Your task to perform on an android device: Open internet settings Image 0: 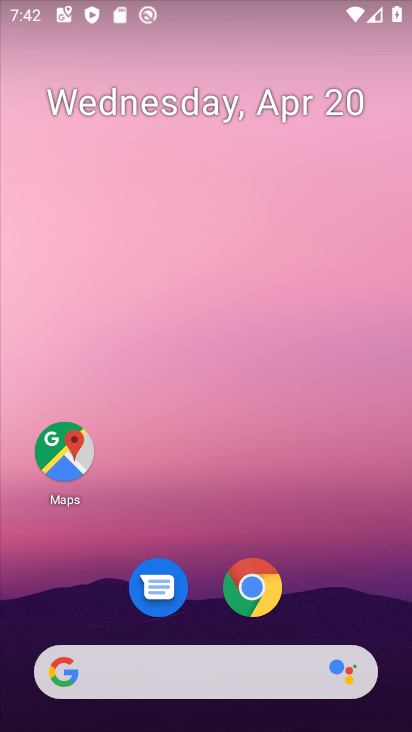
Step 0: drag from (345, 581) to (346, 177)
Your task to perform on an android device: Open internet settings Image 1: 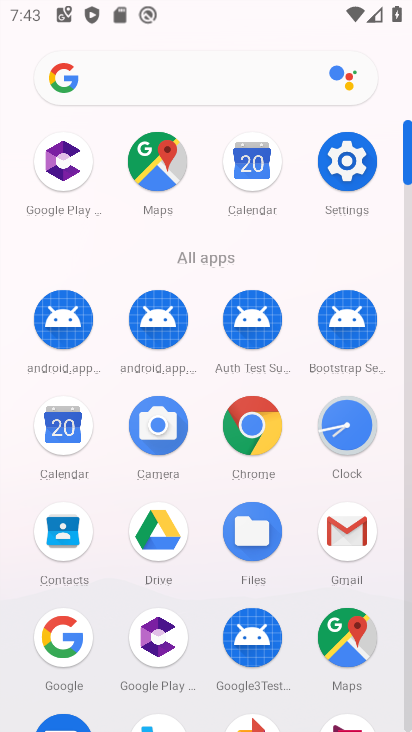
Step 1: click (340, 156)
Your task to perform on an android device: Open internet settings Image 2: 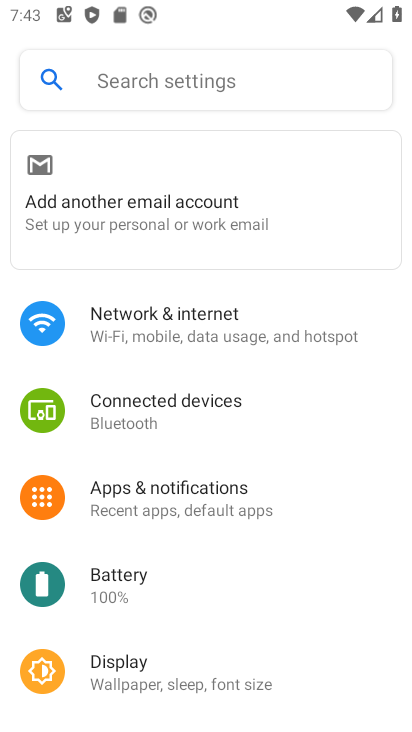
Step 2: drag from (356, 566) to (357, 383)
Your task to perform on an android device: Open internet settings Image 3: 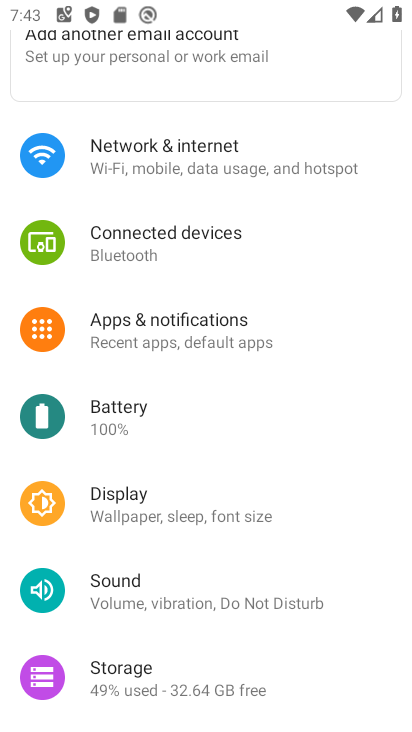
Step 3: drag from (355, 602) to (357, 349)
Your task to perform on an android device: Open internet settings Image 4: 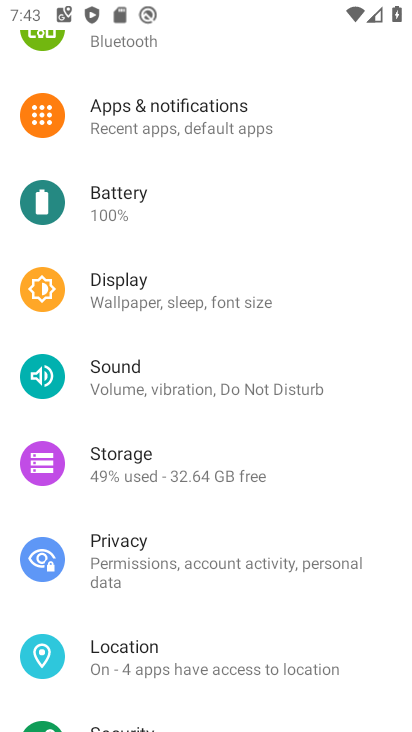
Step 4: drag from (357, 617) to (363, 367)
Your task to perform on an android device: Open internet settings Image 5: 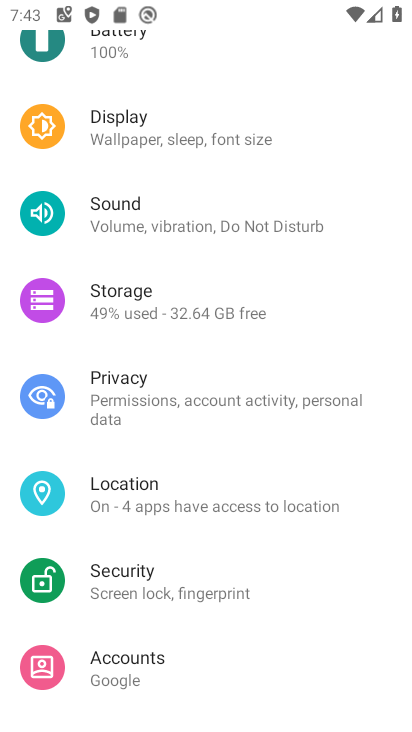
Step 5: drag from (371, 596) to (368, 381)
Your task to perform on an android device: Open internet settings Image 6: 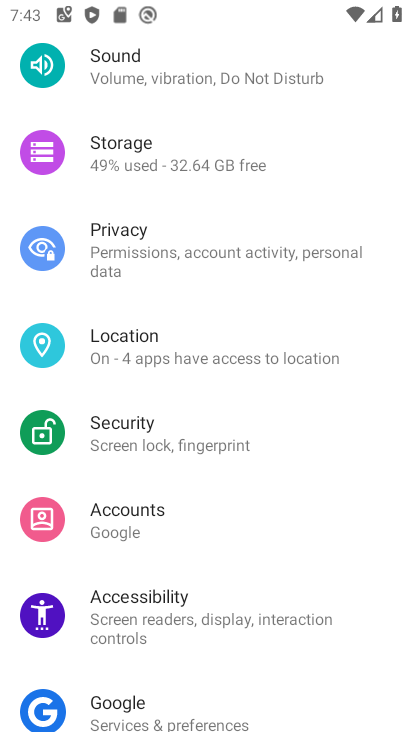
Step 6: drag from (351, 657) to (359, 365)
Your task to perform on an android device: Open internet settings Image 7: 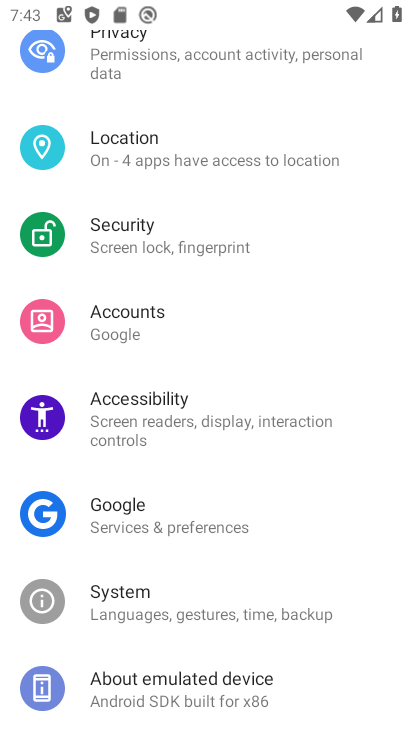
Step 7: drag from (369, 294) to (367, 491)
Your task to perform on an android device: Open internet settings Image 8: 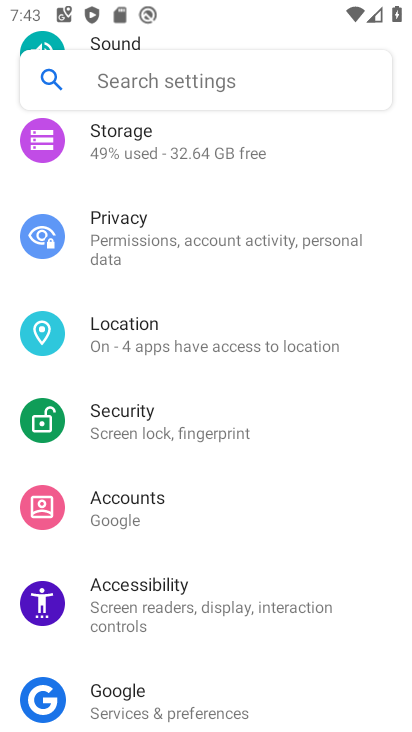
Step 8: drag from (378, 270) to (372, 482)
Your task to perform on an android device: Open internet settings Image 9: 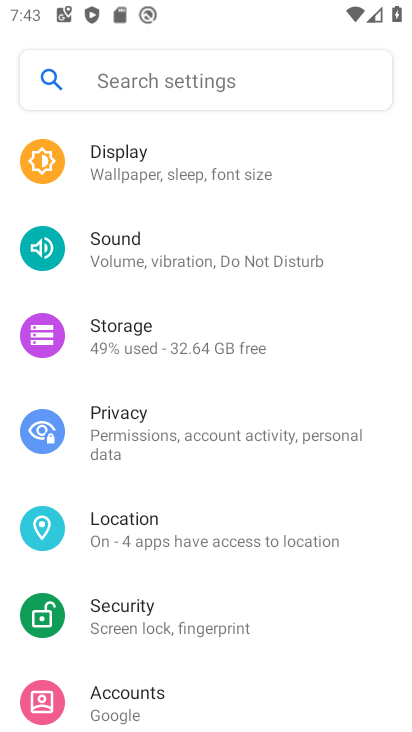
Step 9: drag from (376, 260) to (380, 485)
Your task to perform on an android device: Open internet settings Image 10: 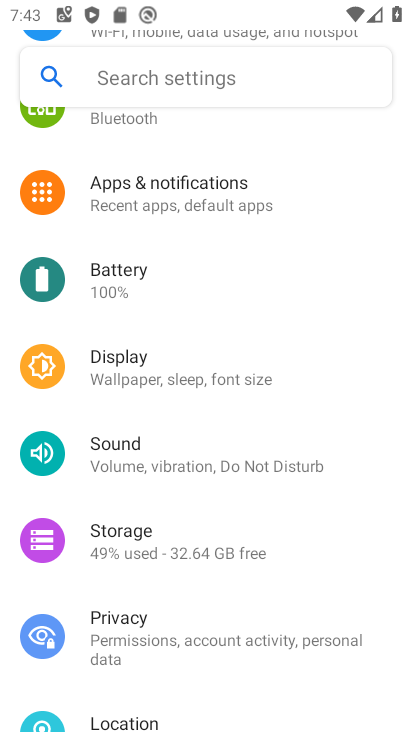
Step 10: drag from (369, 220) to (362, 426)
Your task to perform on an android device: Open internet settings Image 11: 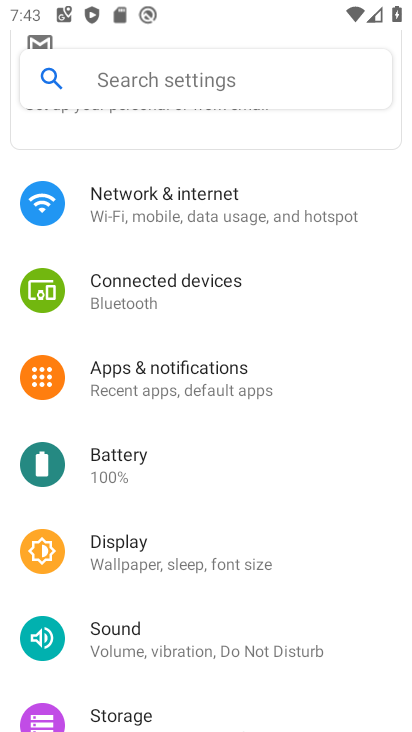
Step 11: drag from (388, 249) to (380, 388)
Your task to perform on an android device: Open internet settings Image 12: 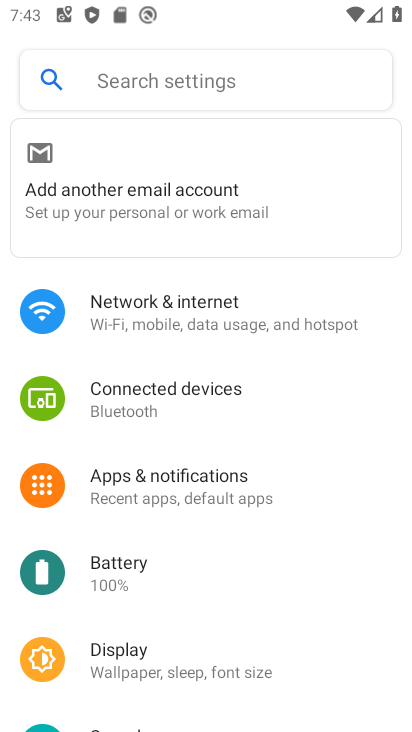
Step 12: click (178, 320)
Your task to perform on an android device: Open internet settings Image 13: 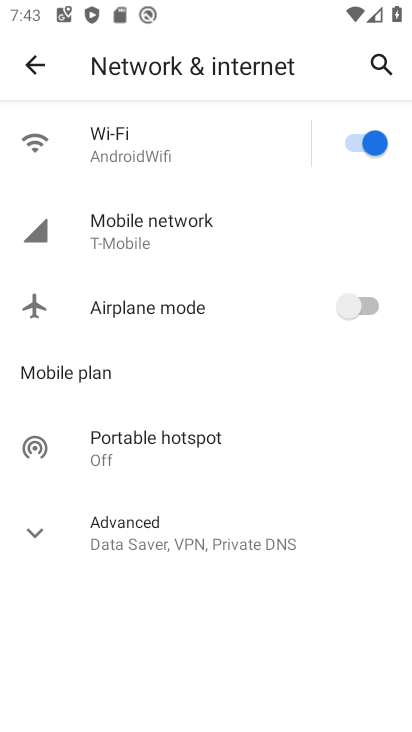
Step 13: task complete